Your task to perform on an android device: open app "AliExpress" (install if not already installed), go to login, and select forgot password Image 0: 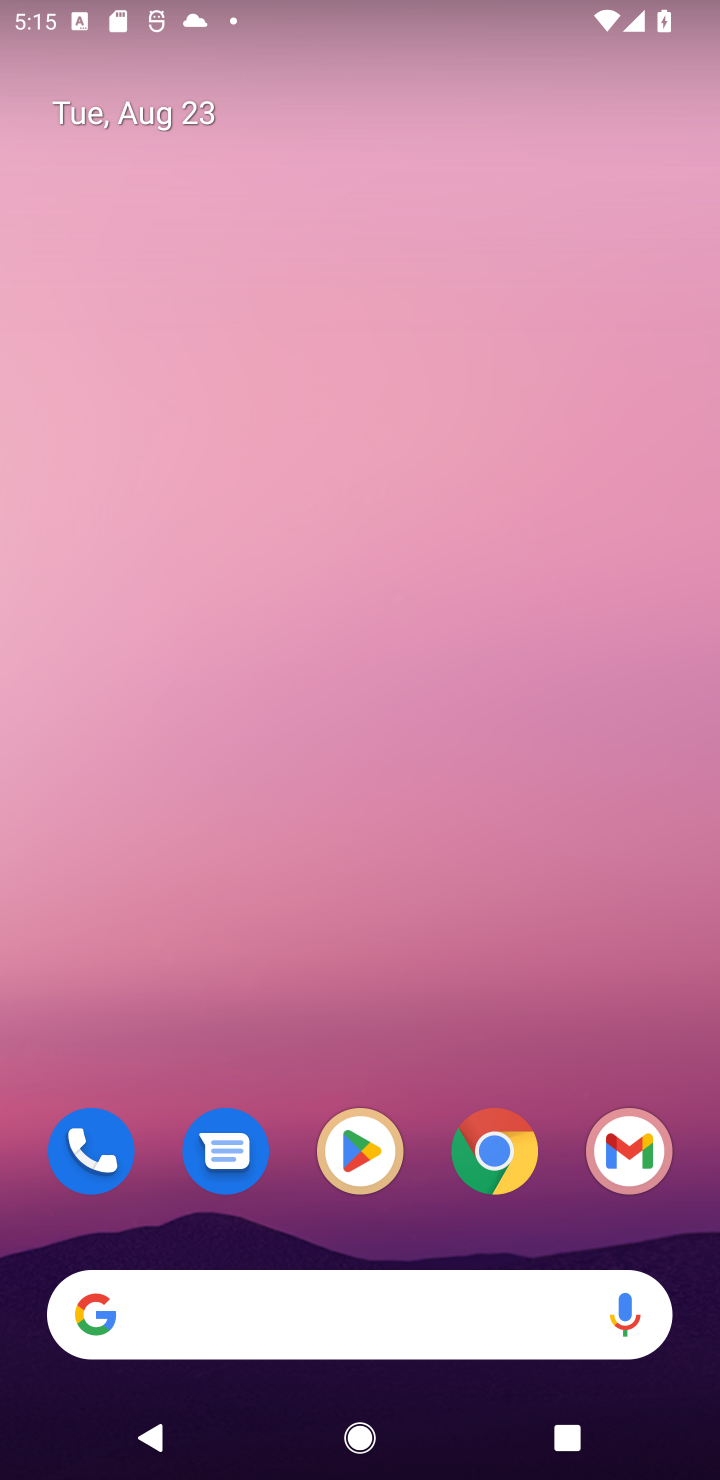
Step 0: click (361, 1145)
Your task to perform on an android device: open app "AliExpress" (install if not already installed), go to login, and select forgot password Image 1: 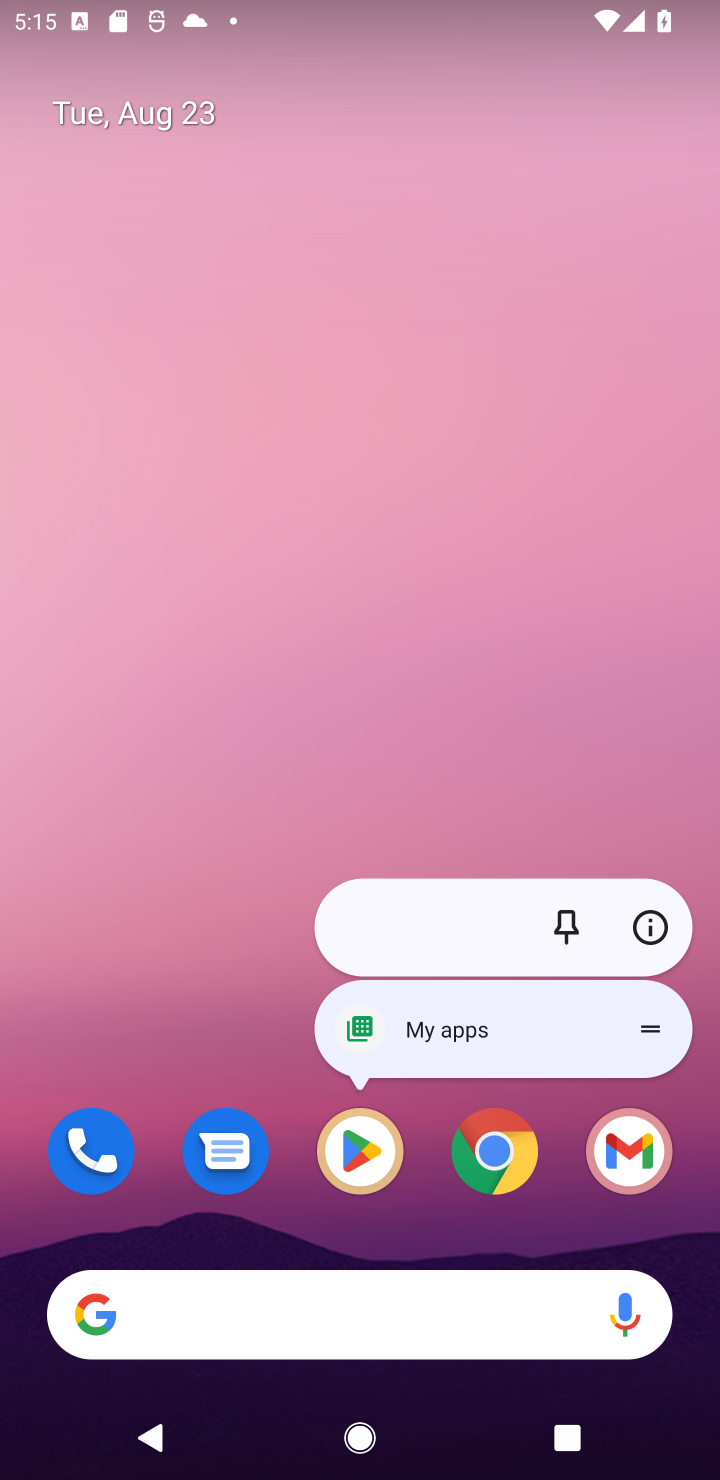
Step 1: click (354, 1152)
Your task to perform on an android device: open app "AliExpress" (install if not already installed), go to login, and select forgot password Image 2: 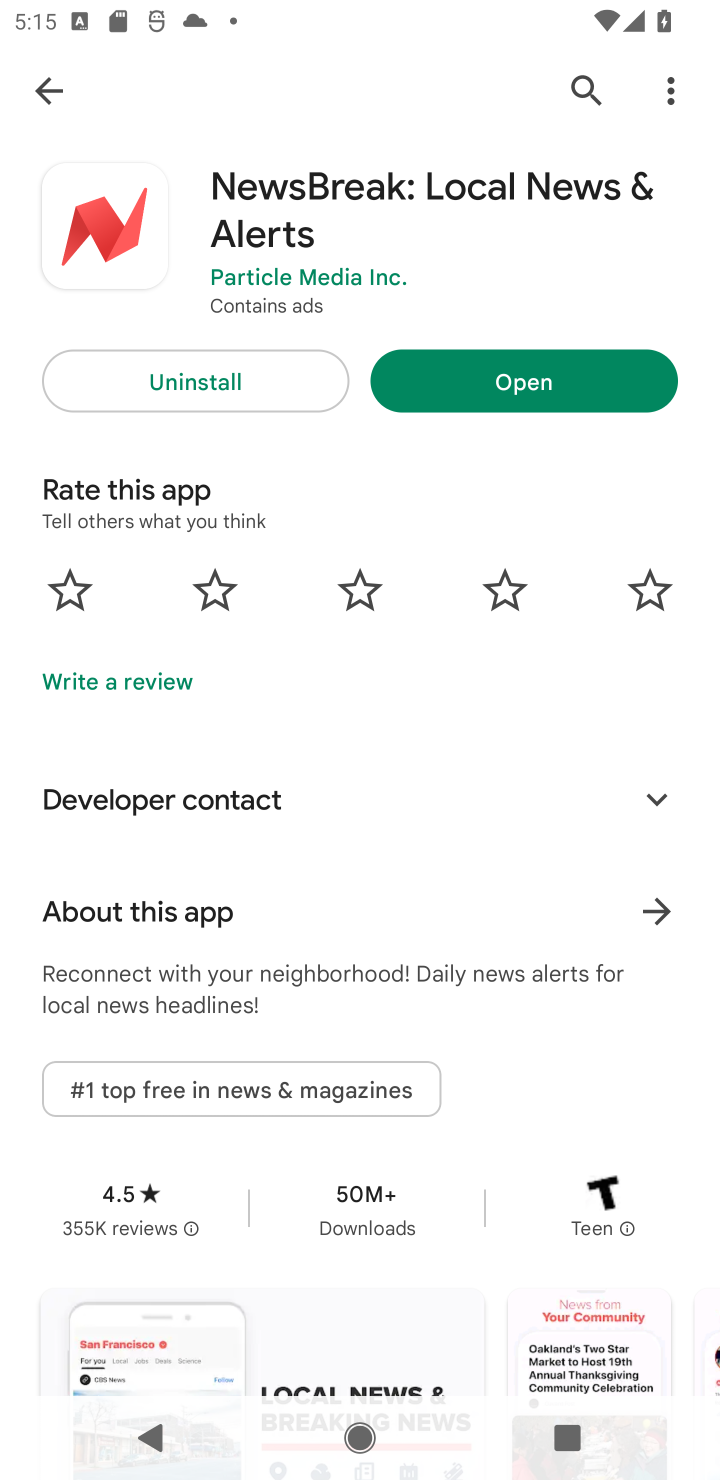
Step 2: click (578, 89)
Your task to perform on an android device: open app "AliExpress" (install if not already installed), go to login, and select forgot password Image 3: 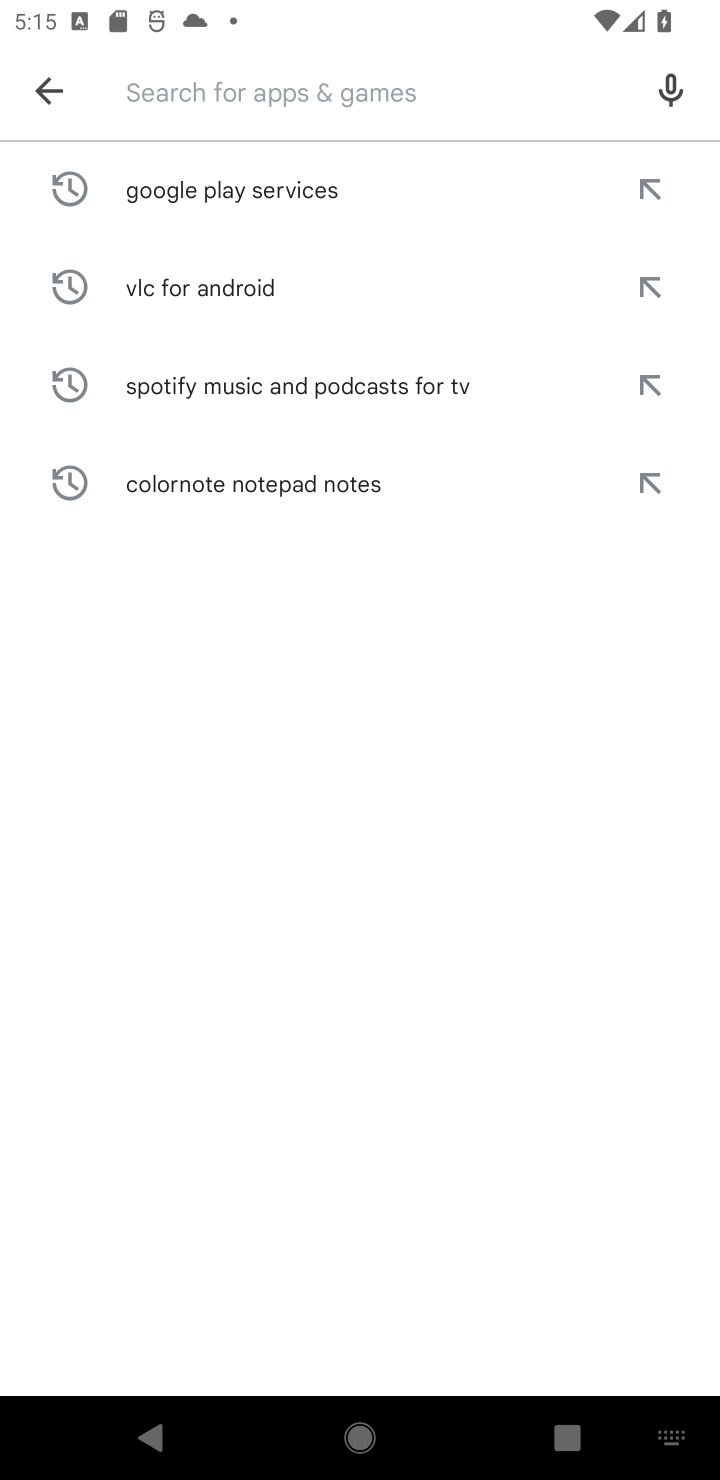
Step 3: type "AliExpress"
Your task to perform on an android device: open app "AliExpress" (install if not already installed), go to login, and select forgot password Image 4: 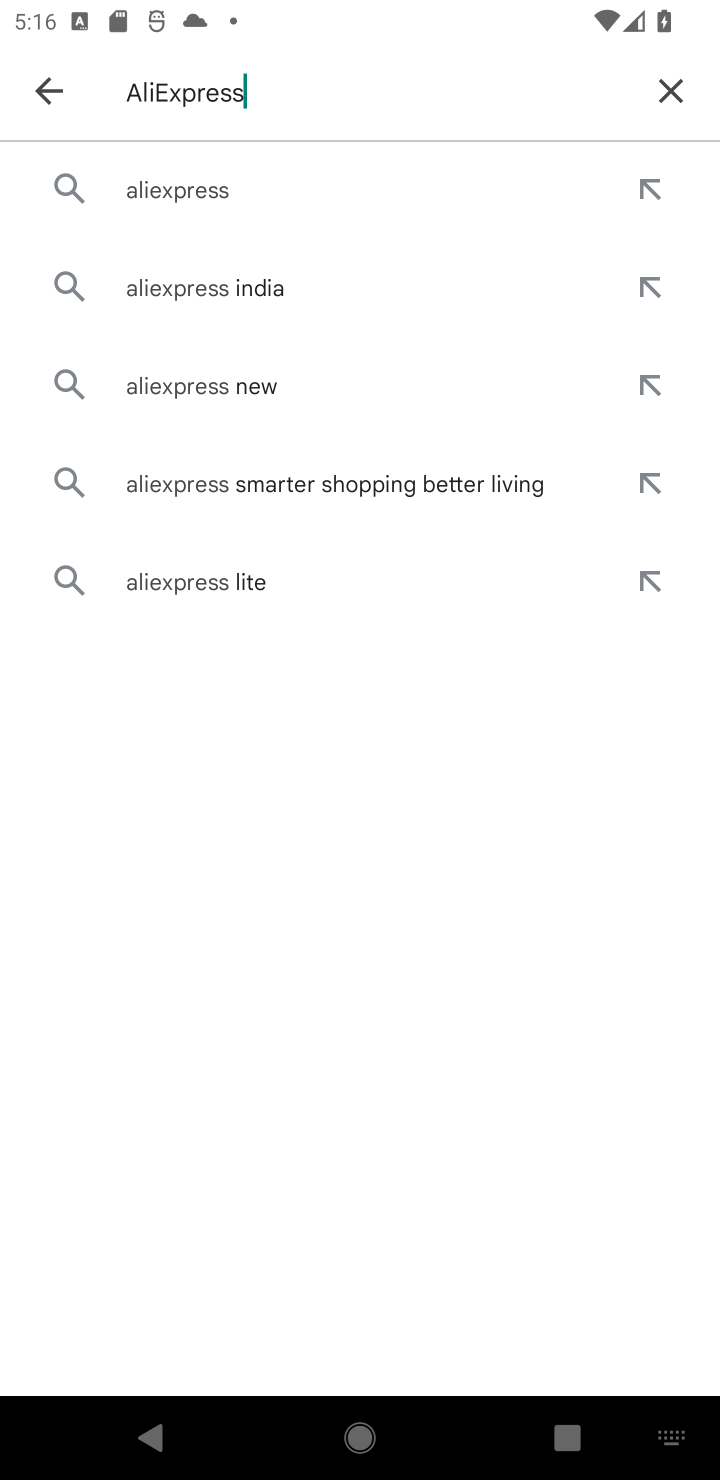
Step 4: click (194, 197)
Your task to perform on an android device: open app "AliExpress" (install if not already installed), go to login, and select forgot password Image 5: 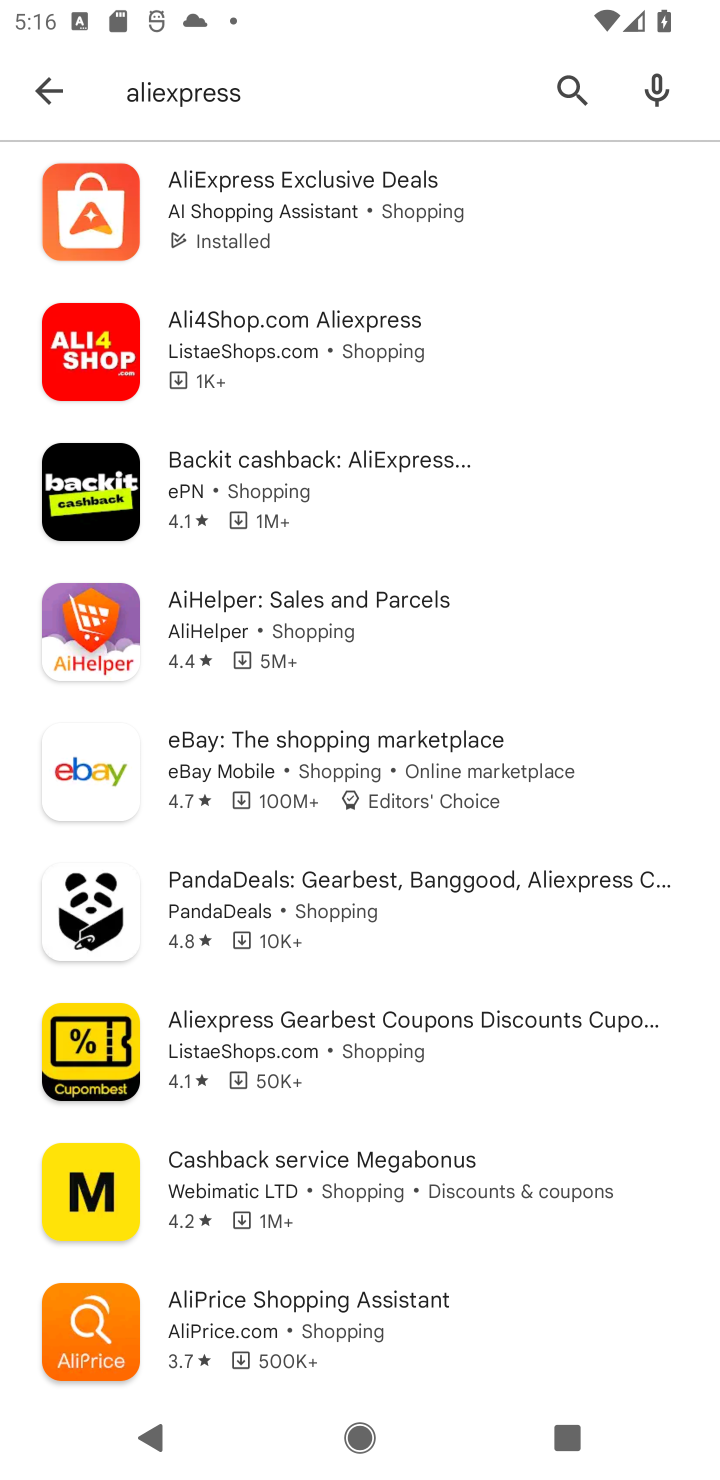
Step 5: click (296, 243)
Your task to perform on an android device: open app "AliExpress" (install if not already installed), go to login, and select forgot password Image 6: 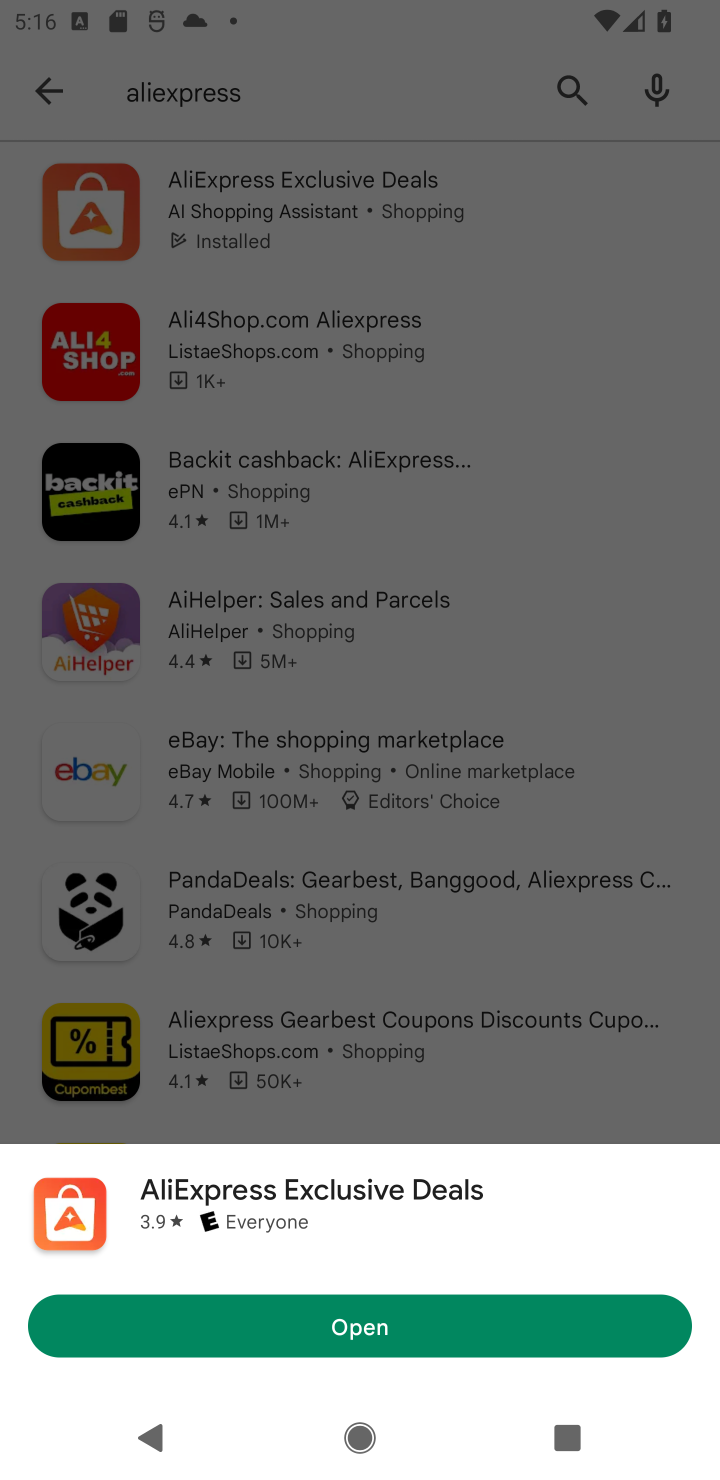
Step 6: click (416, 1329)
Your task to perform on an android device: open app "AliExpress" (install if not already installed), go to login, and select forgot password Image 7: 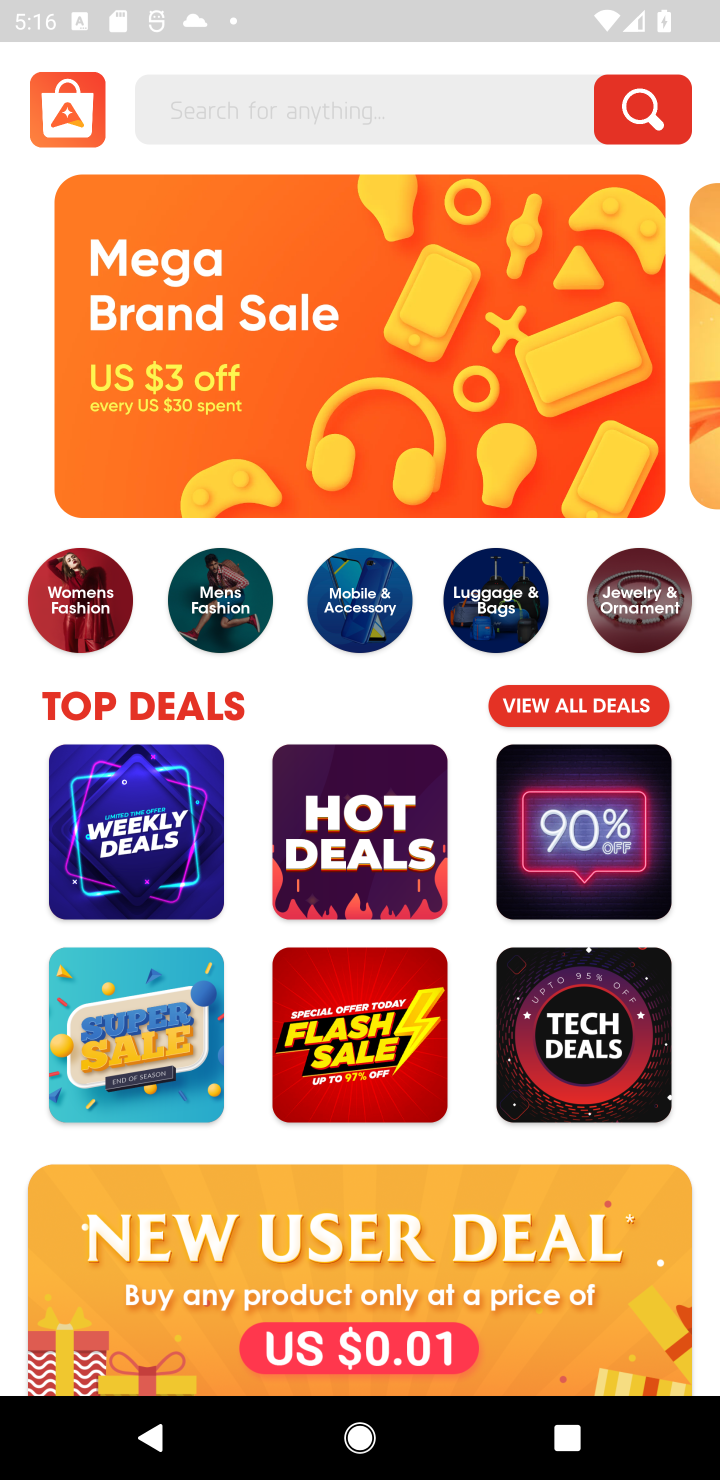
Step 7: task complete